Your task to perform on an android device: Set the phone to "Do not disturb". Image 0: 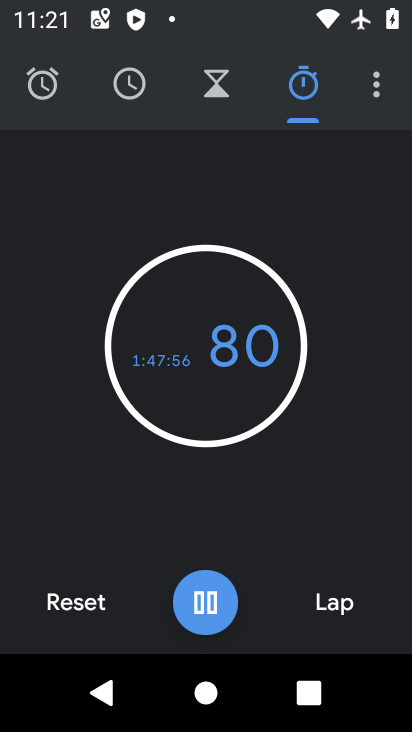
Step 0: press home button
Your task to perform on an android device: Set the phone to "Do not disturb". Image 1: 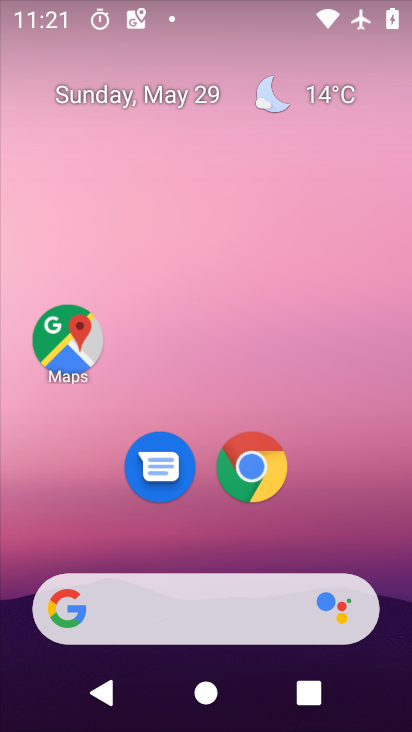
Step 1: drag from (202, 543) to (207, 135)
Your task to perform on an android device: Set the phone to "Do not disturb". Image 2: 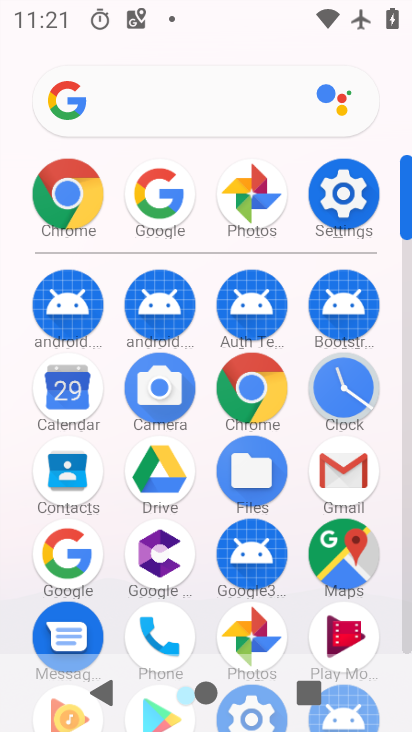
Step 2: click (339, 172)
Your task to perform on an android device: Set the phone to "Do not disturb". Image 3: 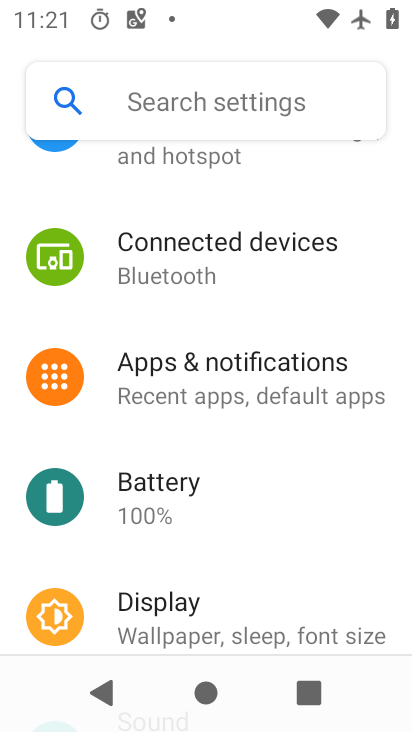
Step 3: drag from (229, 559) to (229, 304)
Your task to perform on an android device: Set the phone to "Do not disturb". Image 4: 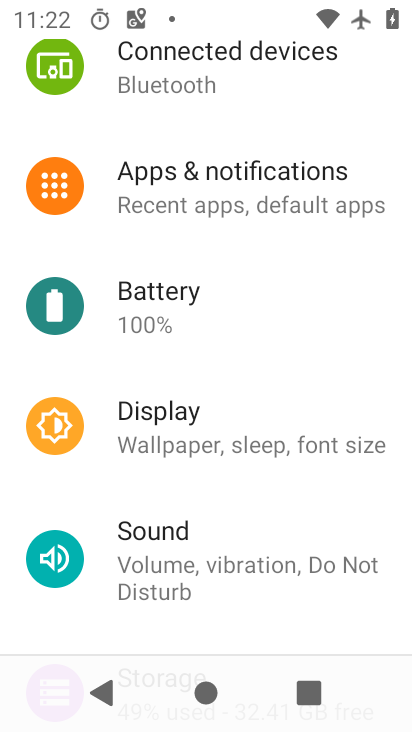
Step 4: click (227, 559)
Your task to perform on an android device: Set the phone to "Do not disturb". Image 5: 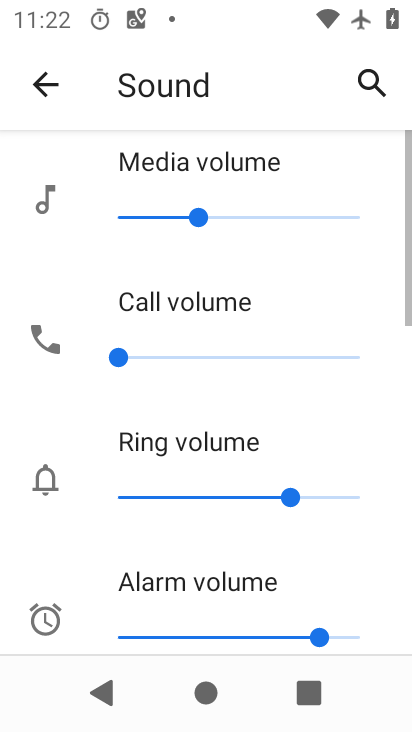
Step 5: drag from (198, 568) to (191, 285)
Your task to perform on an android device: Set the phone to "Do not disturb". Image 6: 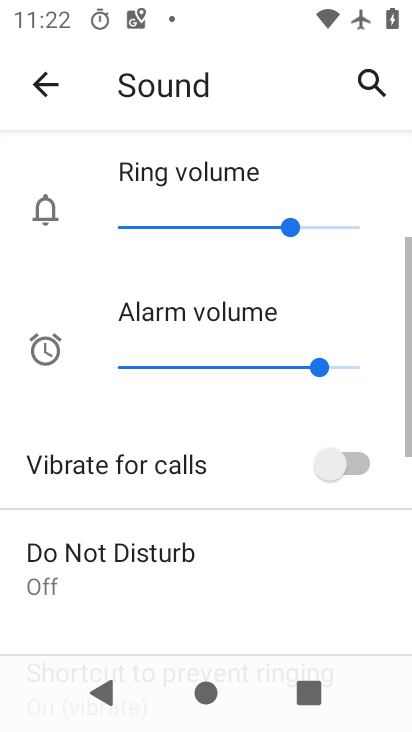
Step 6: drag from (198, 617) to (193, 386)
Your task to perform on an android device: Set the phone to "Do not disturb". Image 7: 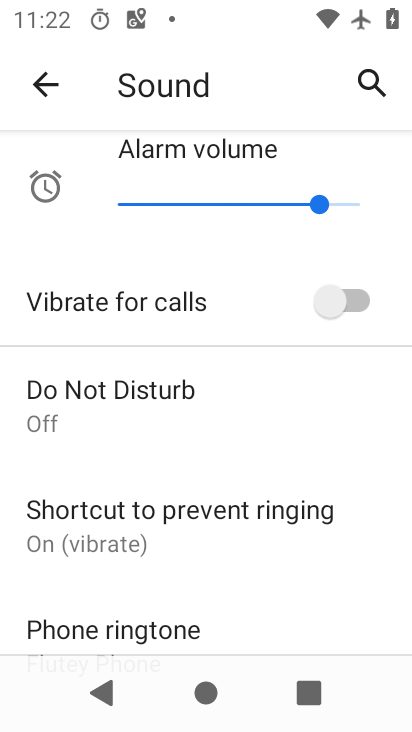
Step 7: click (160, 409)
Your task to perform on an android device: Set the phone to "Do not disturb". Image 8: 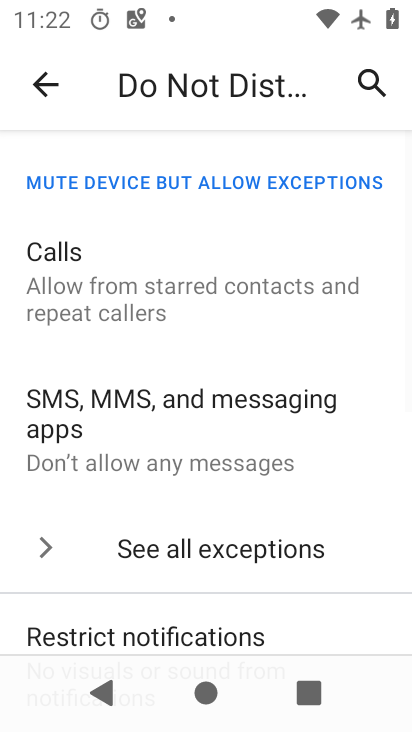
Step 8: drag from (204, 549) to (209, 276)
Your task to perform on an android device: Set the phone to "Do not disturb". Image 9: 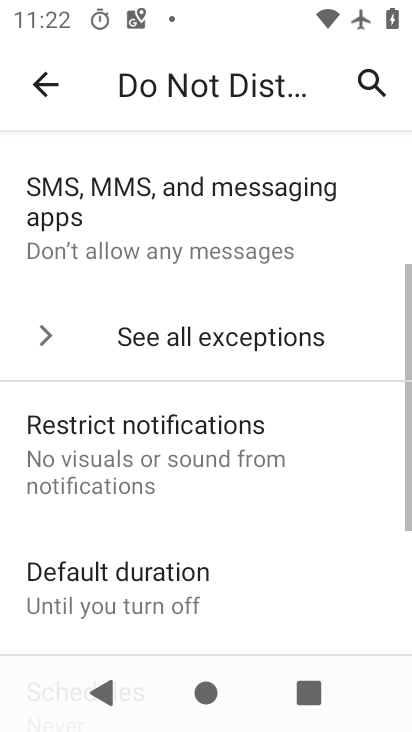
Step 9: drag from (221, 553) to (233, 298)
Your task to perform on an android device: Set the phone to "Do not disturb". Image 10: 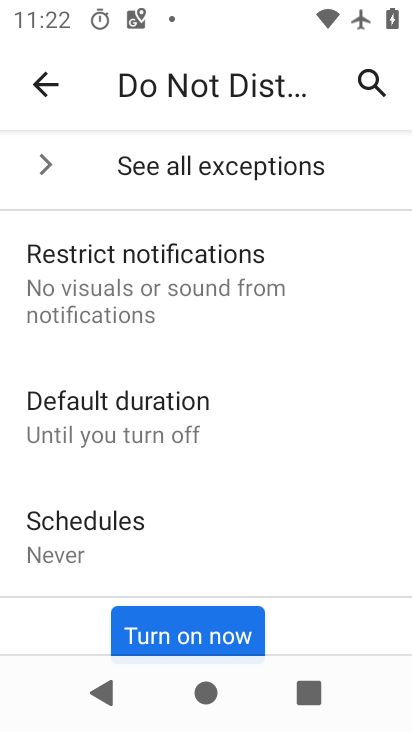
Step 10: click (216, 646)
Your task to perform on an android device: Set the phone to "Do not disturb". Image 11: 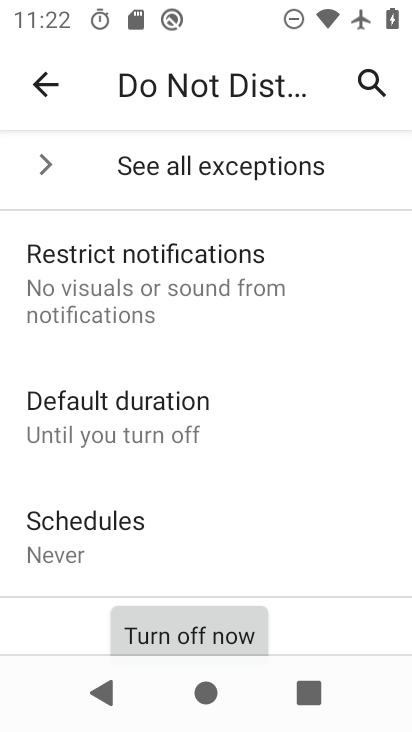
Step 11: task complete